Your task to perform on an android device: Open calendar and show me the first week of next month Image 0: 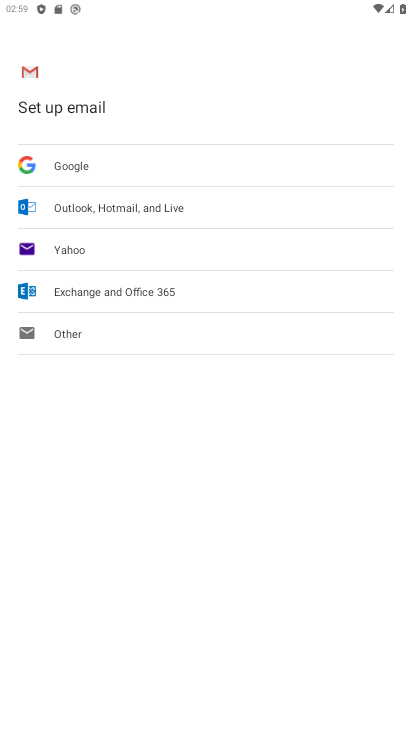
Step 0: press home button
Your task to perform on an android device: Open calendar and show me the first week of next month Image 1: 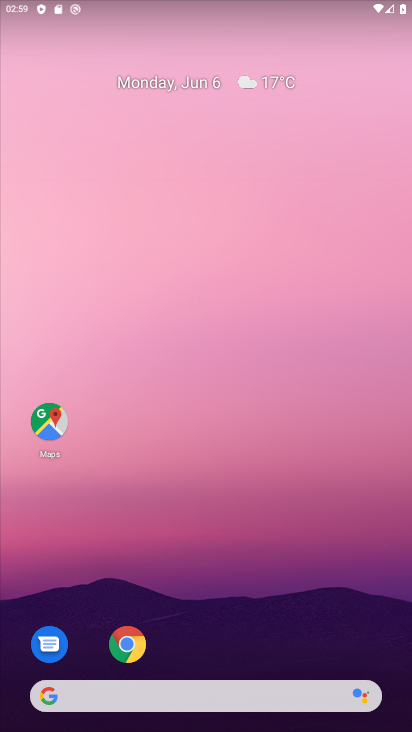
Step 1: drag from (397, 713) to (359, 102)
Your task to perform on an android device: Open calendar and show me the first week of next month Image 2: 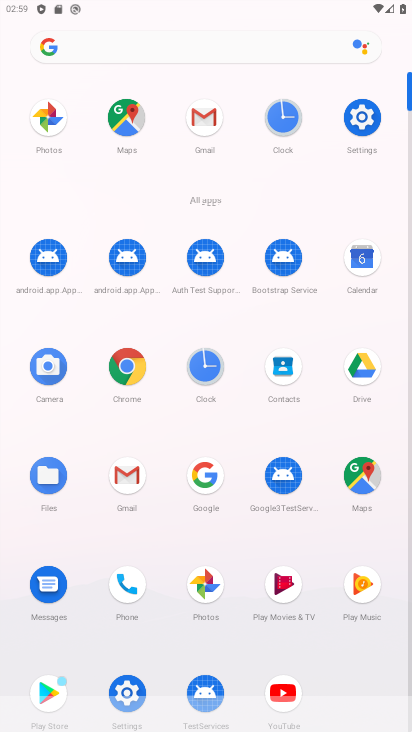
Step 2: click (352, 265)
Your task to perform on an android device: Open calendar and show me the first week of next month Image 3: 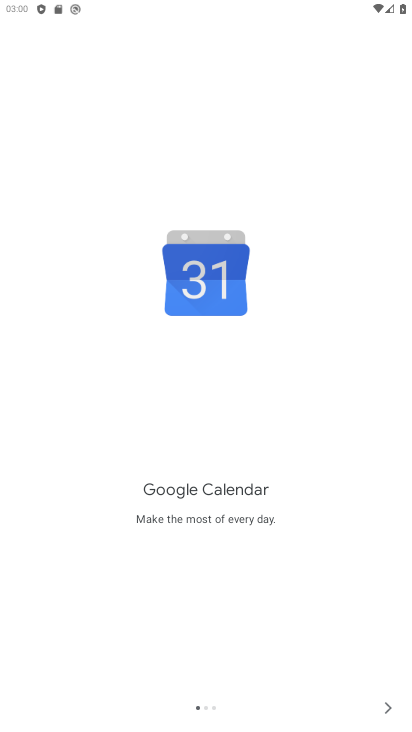
Step 3: click (391, 705)
Your task to perform on an android device: Open calendar and show me the first week of next month Image 4: 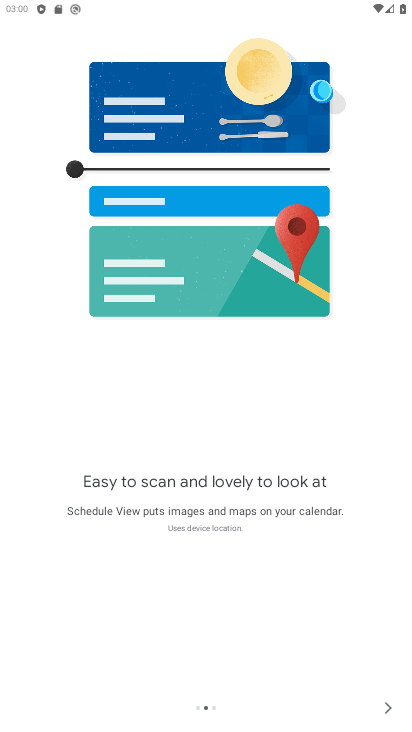
Step 4: click (386, 696)
Your task to perform on an android device: Open calendar and show me the first week of next month Image 5: 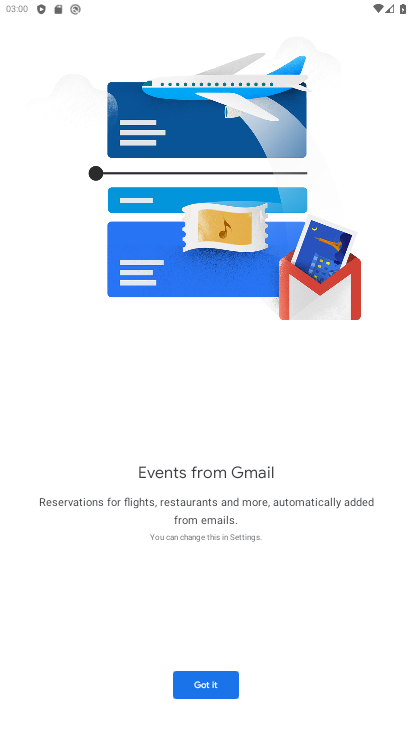
Step 5: click (193, 676)
Your task to perform on an android device: Open calendar and show me the first week of next month Image 6: 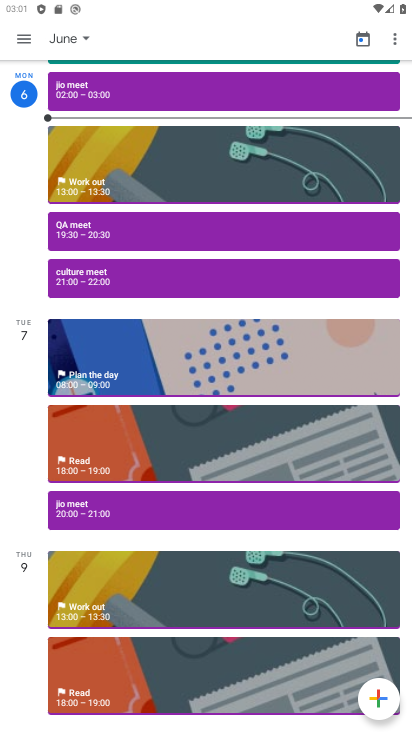
Step 6: click (18, 40)
Your task to perform on an android device: Open calendar and show me the first week of next month Image 7: 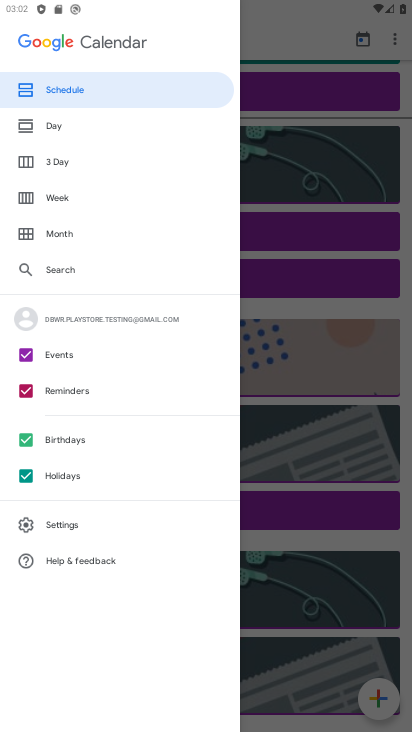
Step 7: click (61, 193)
Your task to perform on an android device: Open calendar and show me the first week of next month Image 8: 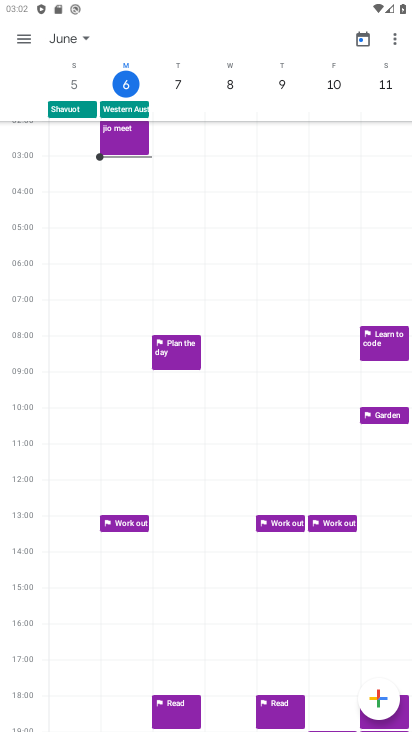
Step 8: click (26, 37)
Your task to perform on an android device: Open calendar and show me the first week of next month Image 9: 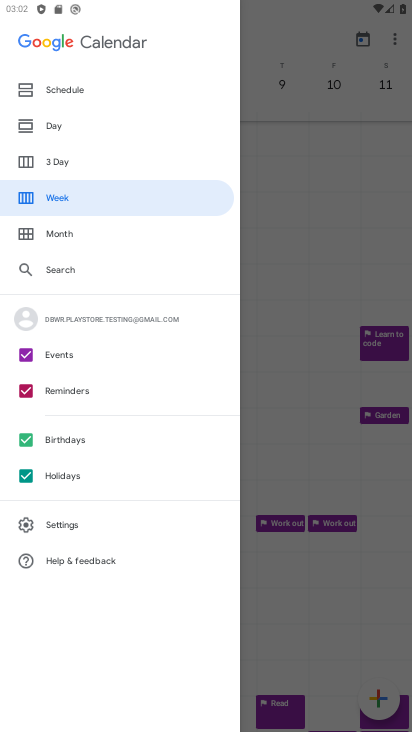
Step 9: press back button
Your task to perform on an android device: Open calendar and show me the first week of next month Image 10: 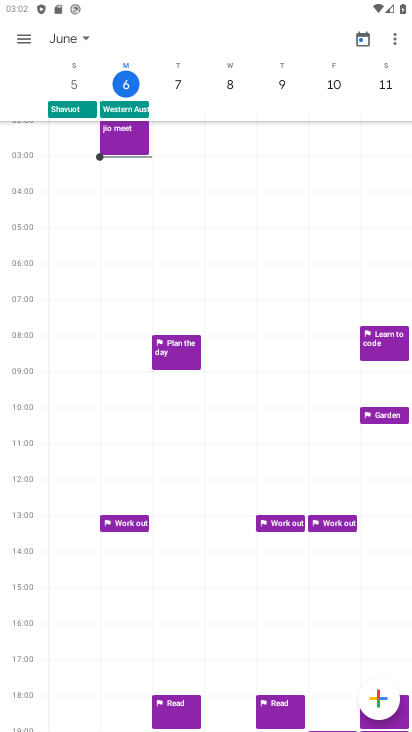
Step 10: click (84, 40)
Your task to perform on an android device: Open calendar and show me the first week of next month Image 11: 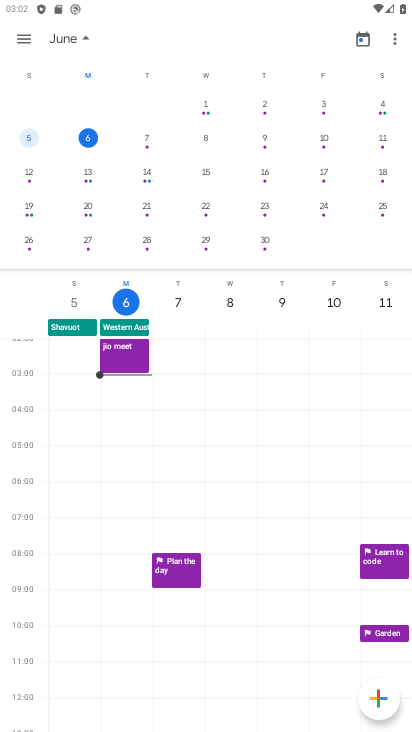
Step 11: drag from (392, 181) to (0, 146)
Your task to perform on an android device: Open calendar and show me the first week of next month Image 12: 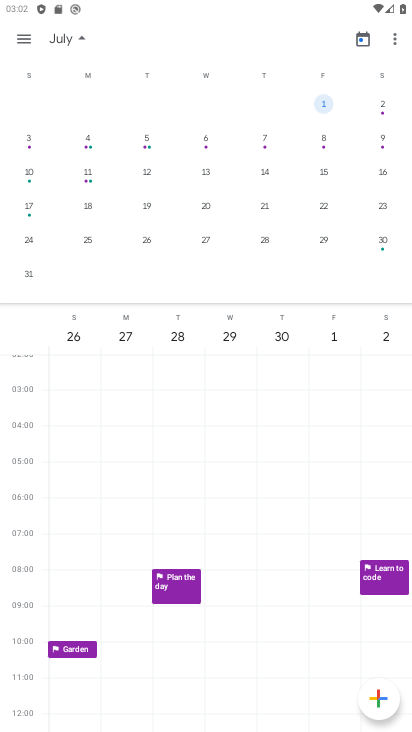
Step 12: click (382, 103)
Your task to perform on an android device: Open calendar and show me the first week of next month Image 13: 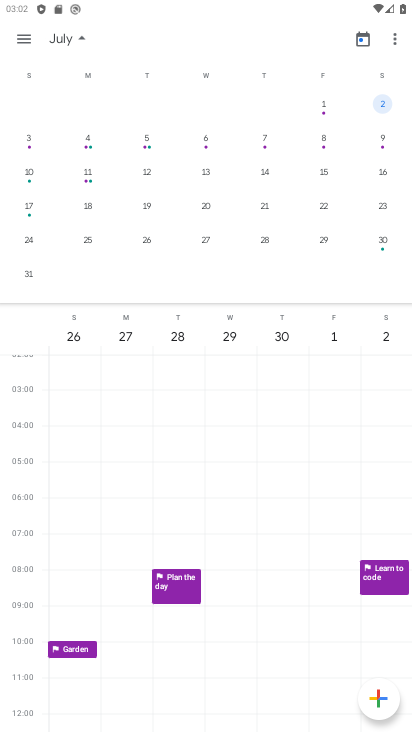
Step 13: click (24, 37)
Your task to perform on an android device: Open calendar and show me the first week of next month Image 14: 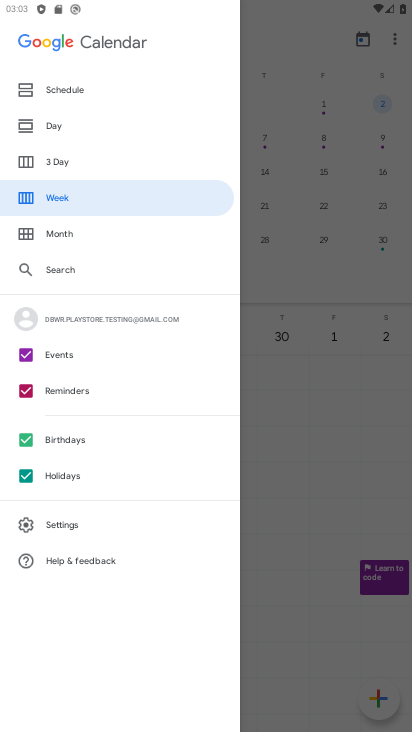
Step 14: click (85, 199)
Your task to perform on an android device: Open calendar and show me the first week of next month Image 15: 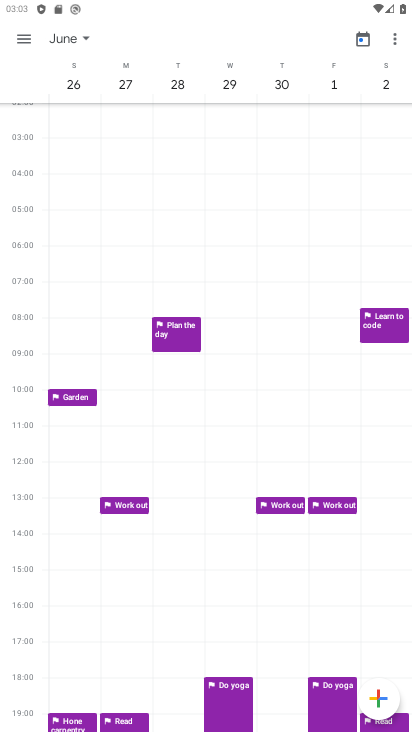
Step 15: task complete